Your task to perform on an android device: Open Google Maps and go to "Timeline" Image 0: 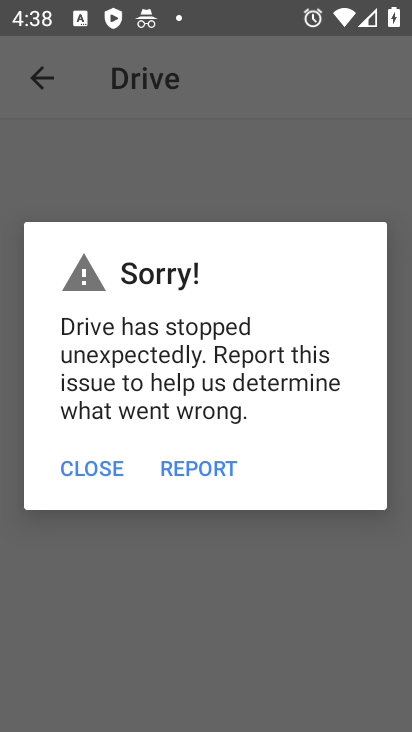
Step 0: press home button
Your task to perform on an android device: Open Google Maps and go to "Timeline" Image 1: 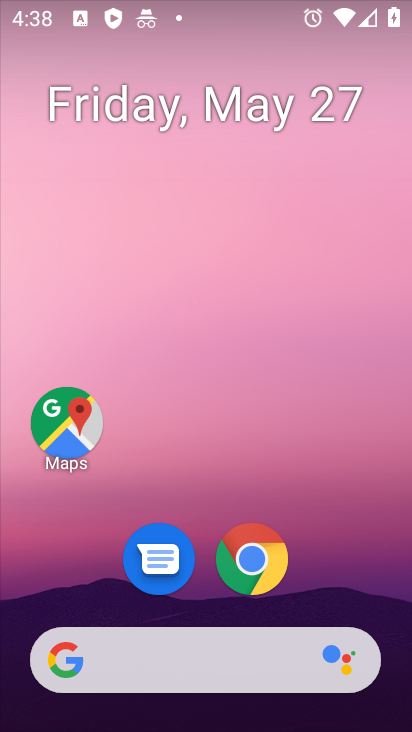
Step 1: drag from (303, 649) to (383, 208)
Your task to perform on an android device: Open Google Maps and go to "Timeline" Image 2: 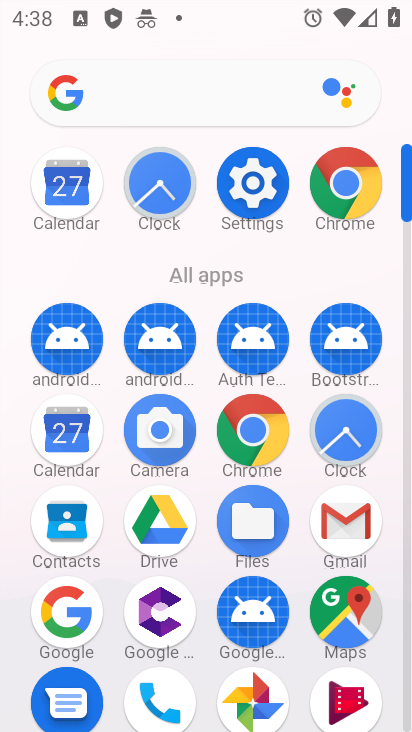
Step 2: click (342, 602)
Your task to perform on an android device: Open Google Maps and go to "Timeline" Image 3: 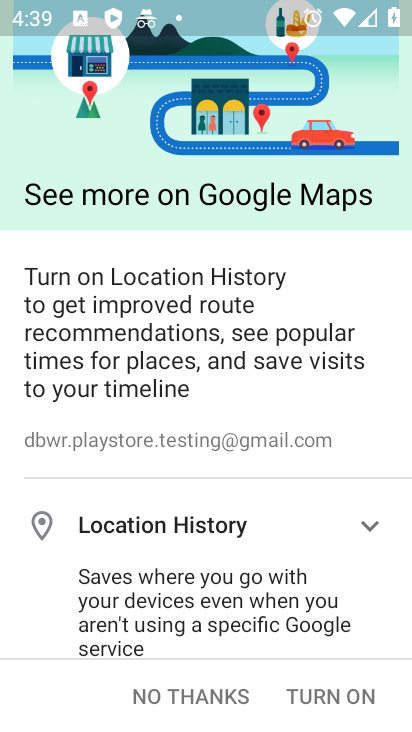
Step 3: press back button
Your task to perform on an android device: Open Google Maps and go to "Timeline" Image 4: 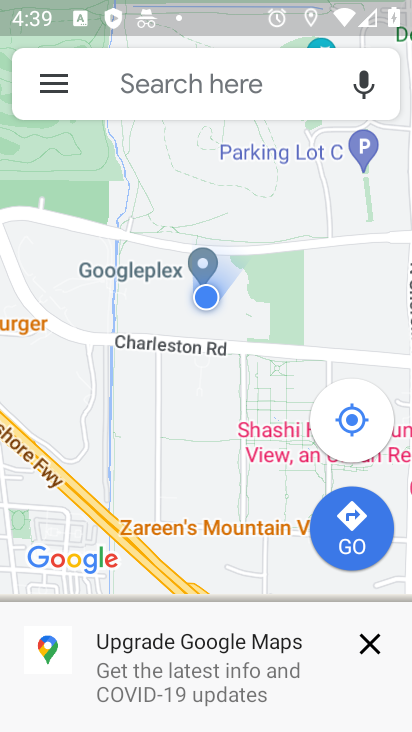
Step 4: click (42, 84)
Your task to perform on an android device: Open Google Maps and go to "Timeline" Image 5: 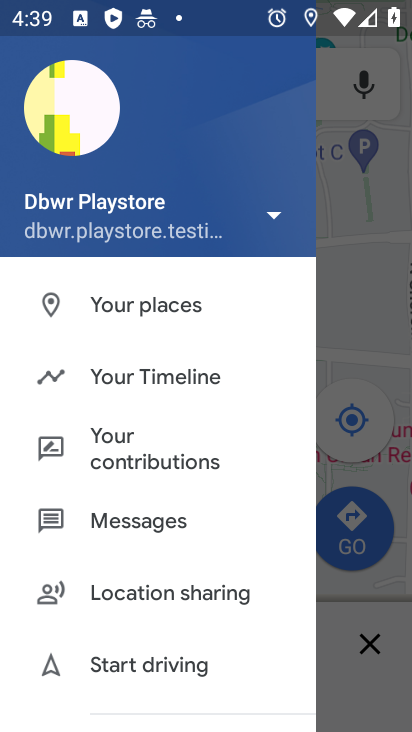
Step 5: click (157, 368)
Your task to perform on an android device: Open Google Maps and go to "Timeline" Image 6: 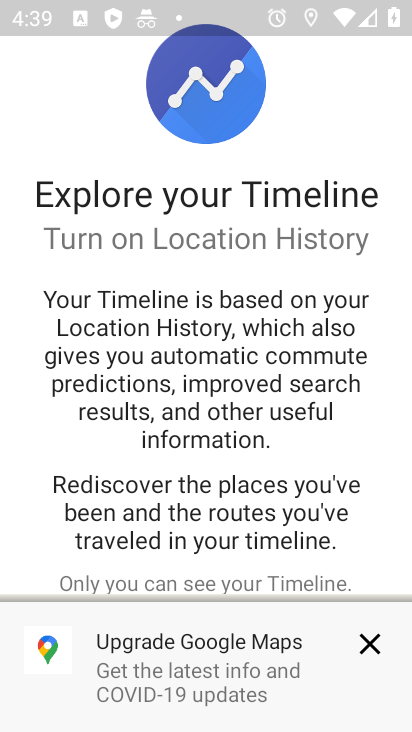
Step 6: drag from (217, 586) to (213, 66)
Your task to perform on an android device: Open Google Maps and go to "Timeline" Image 7: 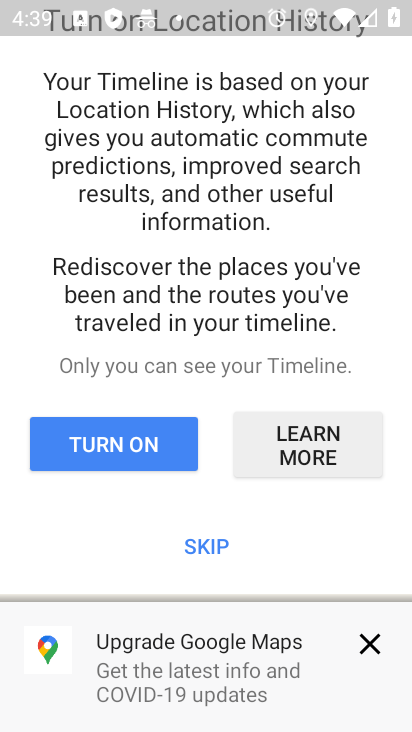
Step 7: click (226, 545)
Your task to perform on an android device: Open Google Maps and go to "Timeline" Image 8: 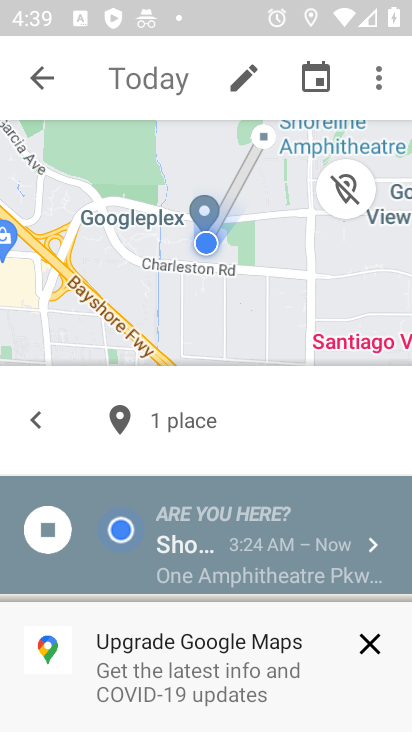
Step 8: task complete